Your task to perform on an android device: turn off javascript in the chrome app Image 0: 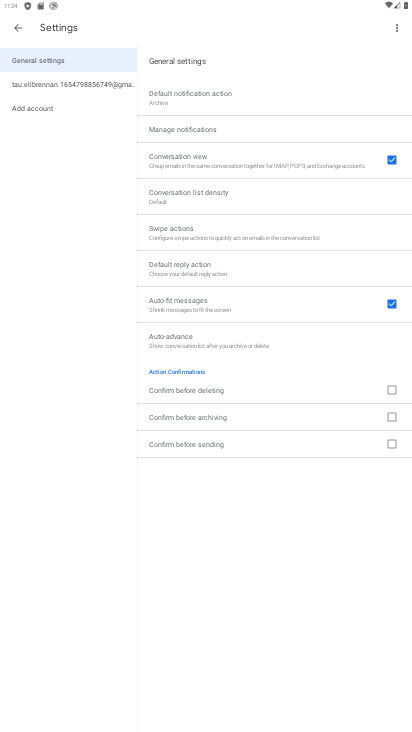
Step 0: click (8, 25)
Your task to perform on an android device: turn off javascript in the chrome app Image 1: 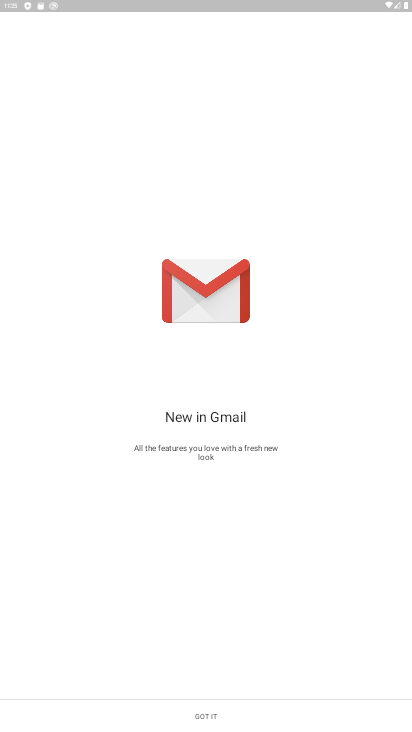
Step 1: click (212, 717)
Your task to perform on an android device: turn off javascript in the chrome app Image 2: 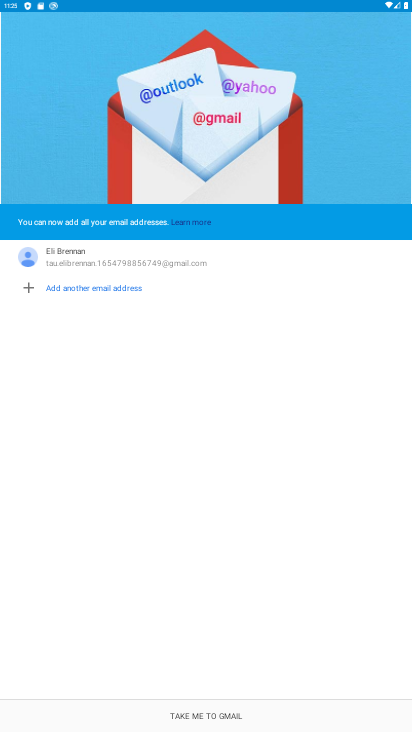
Step 2: press home button
Your task to perform on an android device: turn off javascript in the chrome app Image 3: 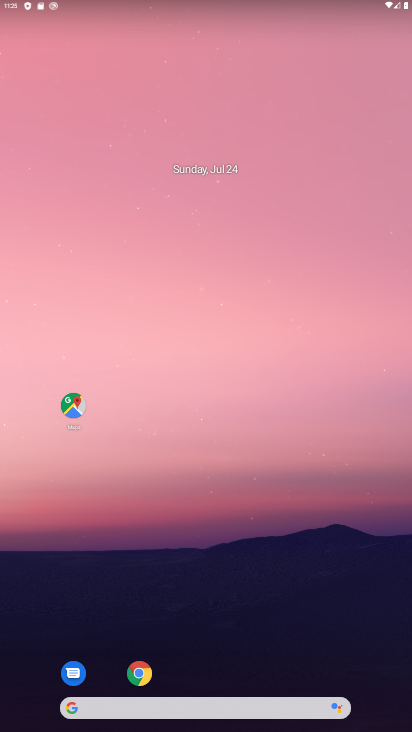
Step 3: click (140, 685)
Your task to perform on an android device: turn off javascript in the chrome app Image 4: 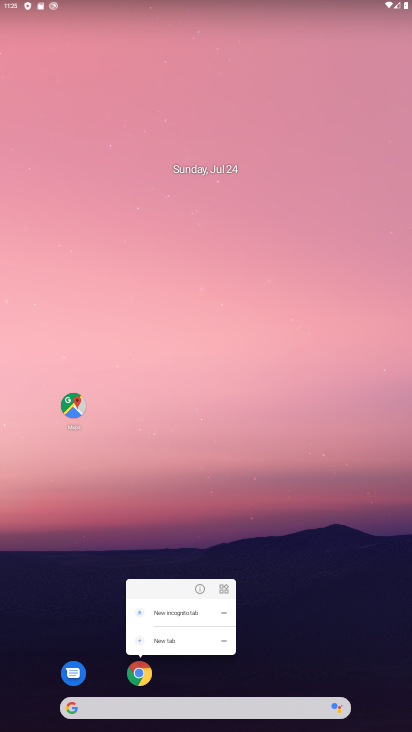
Step 4: click (142, 677)
Your task to perform on an android device: turn off javascript in the chrome app Image 5: 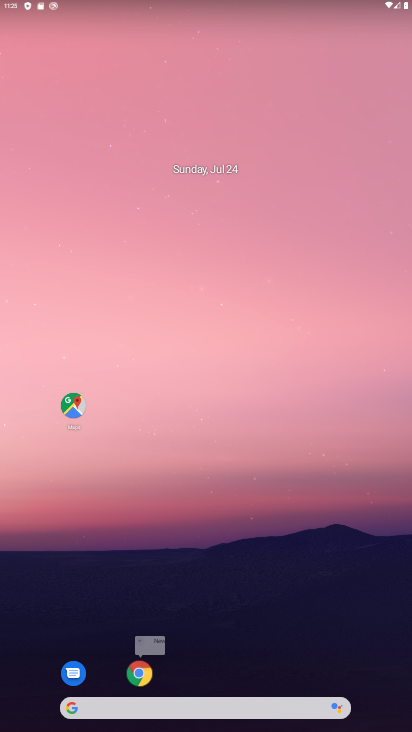
Step 5: click (142, 677)
Your task to perform on an android device: turn off javascript in the chrome app Image 6: 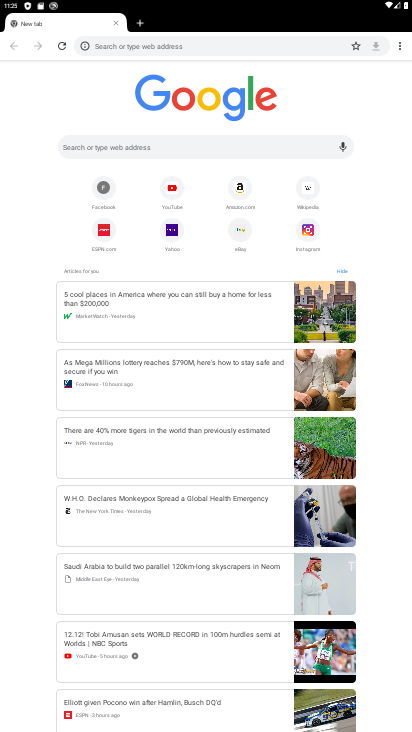
Step 6: click (402, 46)
Your task to perform on an android device: turn off javascript in the chrome app Image 7: 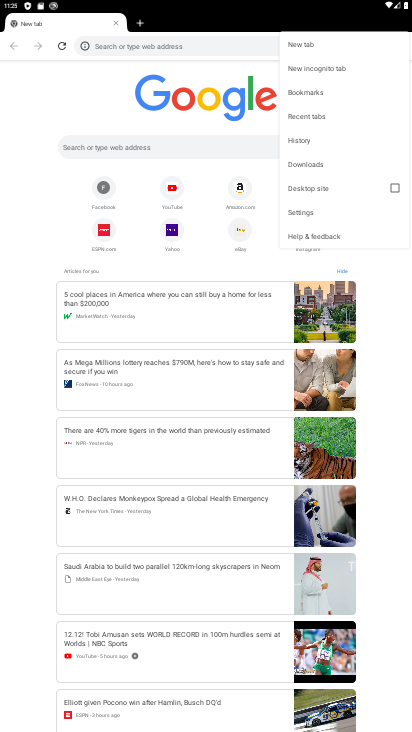
Step 7: click (308, 207)
Your task to perform on an android device: turn off javascript in the chrome app Image 8: 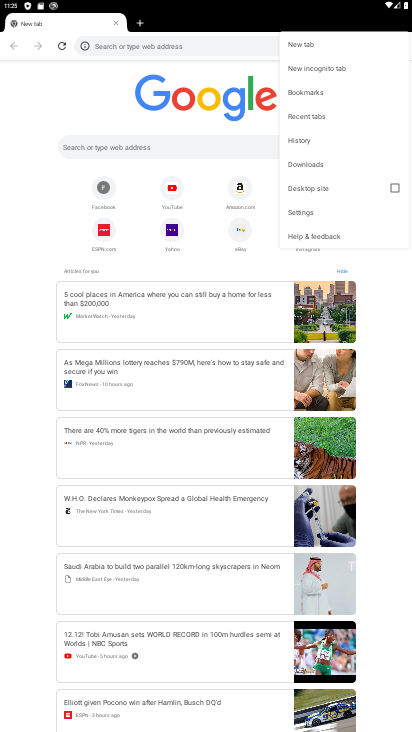
Step 8: click (308, 207)
Your task to perform on an android device: turn off javascript in the chrome app Image 9: 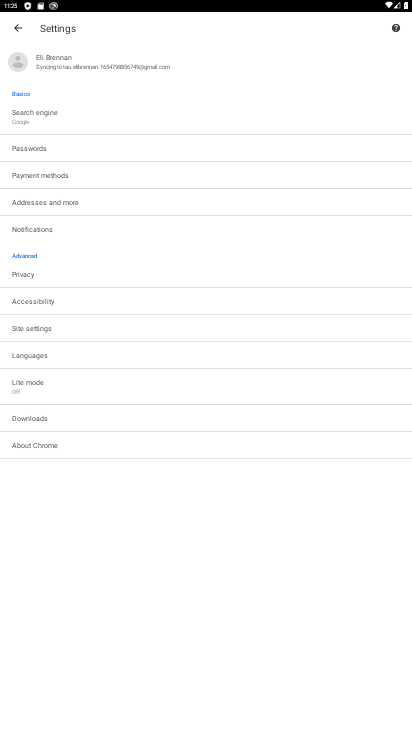
Step 9: click (15, 333)
Your task to perform on an android device: turn off javascript in the chrome app Image 10: 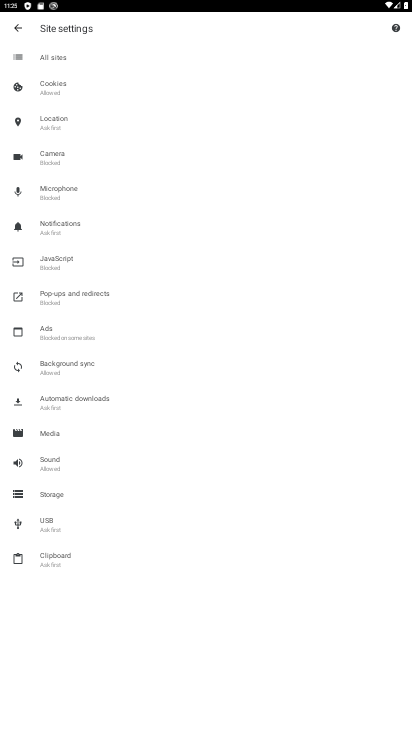
Step 10: click (64, 271)
Your task to perform on an android device: turn off javascript in the chrome app Image 11: 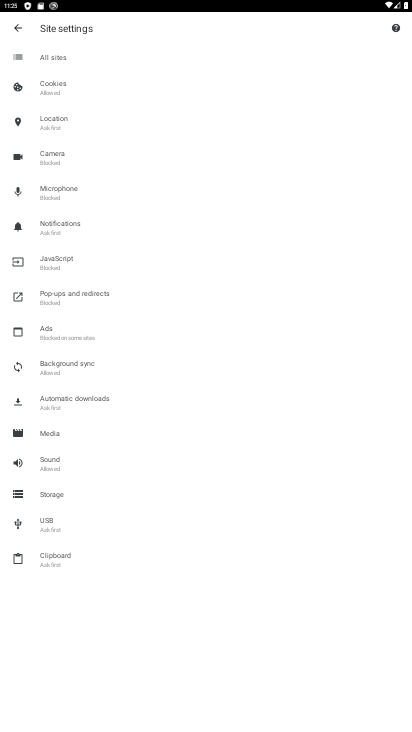
Step 11: click (64, 271)
Your task to perform on an android device: turn off javascript in the chrome app Image 12: 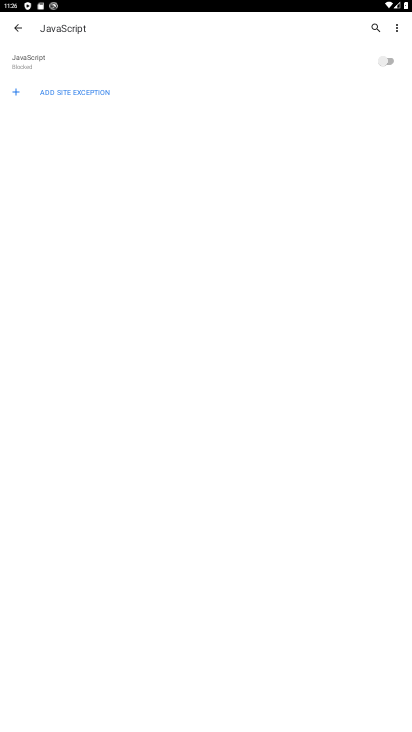
Step 12: task complete